Your task to perform on an android device: delete browsing data in the chrome app Image 0: 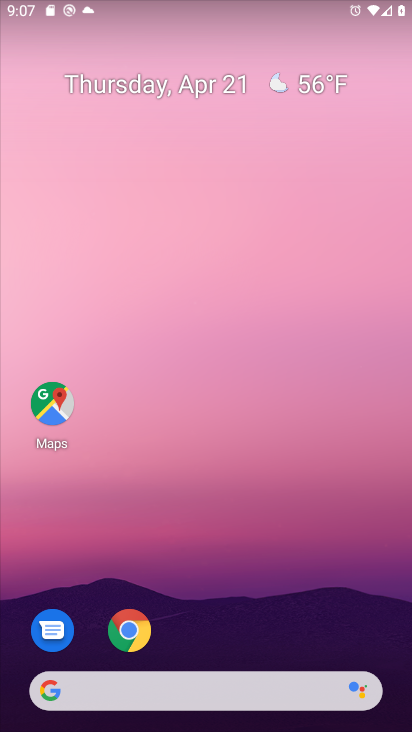
Step 0: click (349, 283)
Your task to perform on an android device: delete browsing data in the chrome app Image 1: 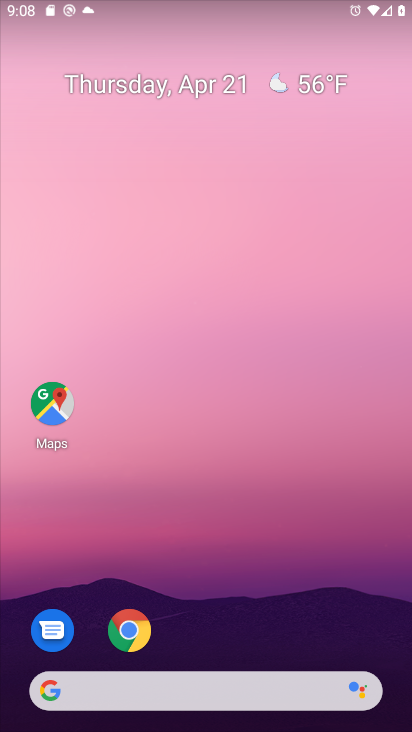
Step 1: click (142, 622)
Your task to perform on an android device: delete browsing data in the chrome app Image 2: 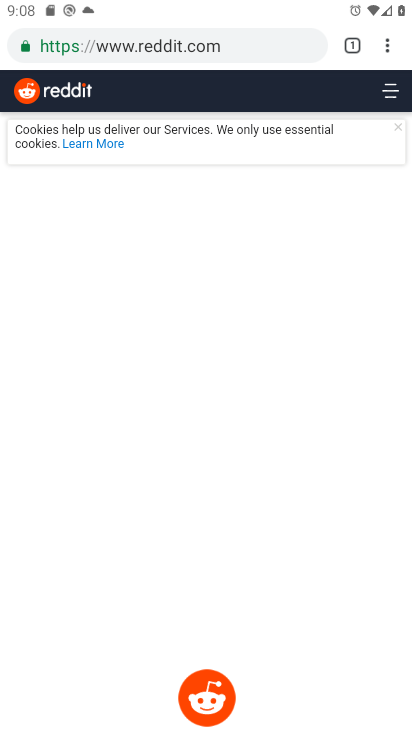
Step 2: click (386, 44)
Your task to perform on an android device: delete browsing data in the chrome app Image 3: 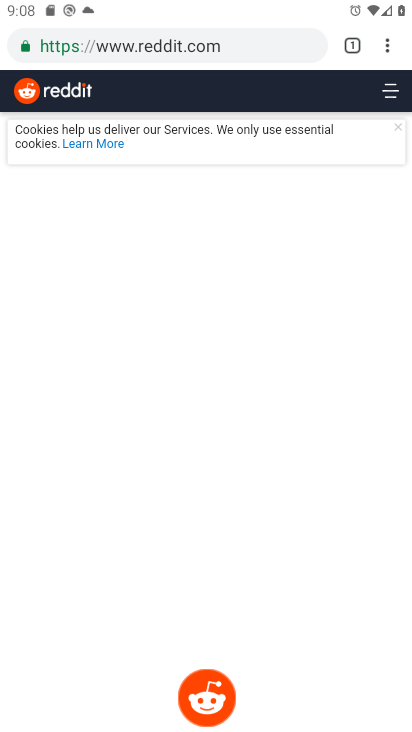
Step 3: click (388, 52)
Your task to perform on an android device: delete browsing data in the chrome app Image 4: 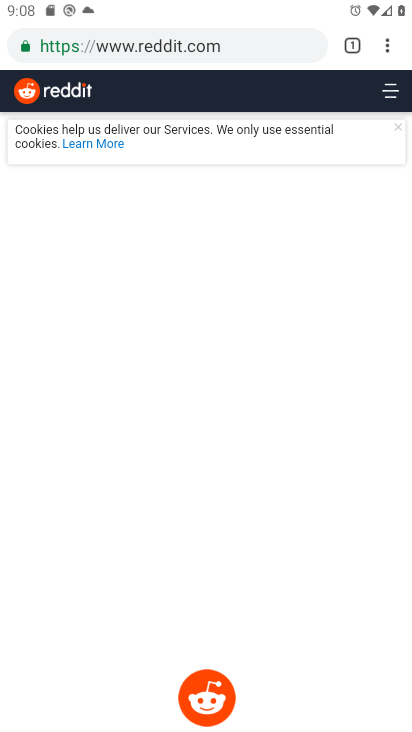
Step 4: click (392, 50)
Your task to perform on an android device: delete browsing data in the chrome app Image 5: 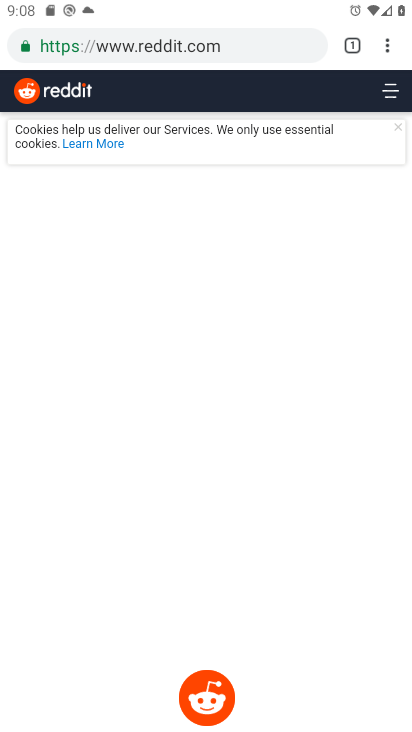
Step 5: click (385, 52)
Your task to perform on an android device: delete browsing data in the chrome app Image 6: 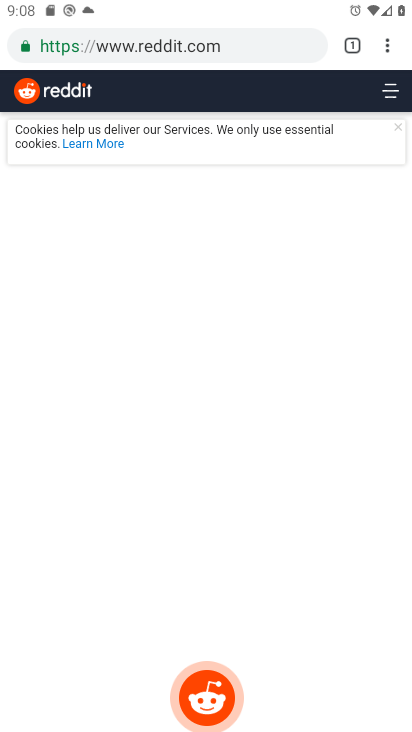
Step 6: click (380, 51)
Your task to perform on an android device: delete browsing data in the chrome app Image 7: 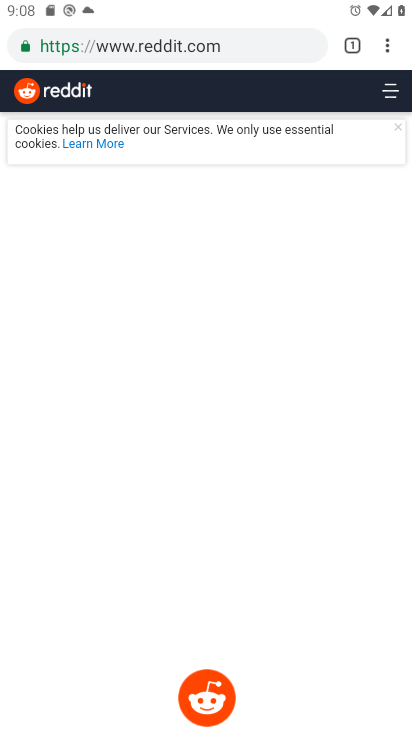
Step 7: click (379, 38)
Your task to perform on an android device: delete browsing data in the chrome app Image 8: 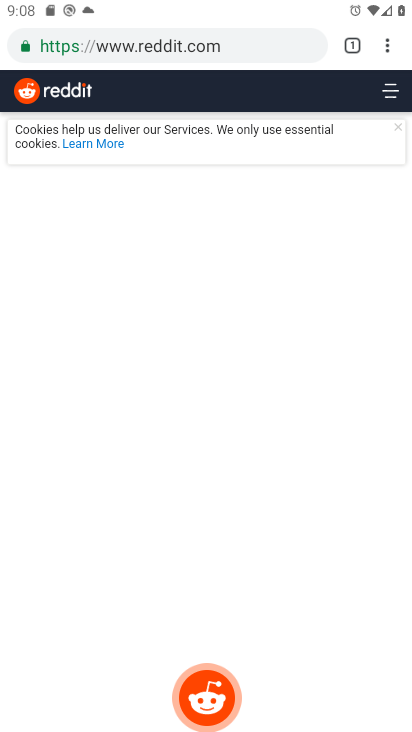
Step 8: click (392, 60)
Your task to perform on an android device: delete browsing data in the chrome app Image 9: 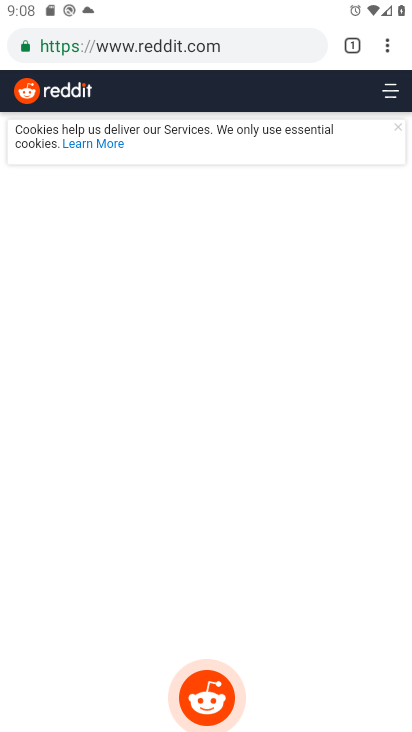
Step 9: click (393, 57)
Your task to perform on an android device: delete browsing data in the chrome app Image 10: 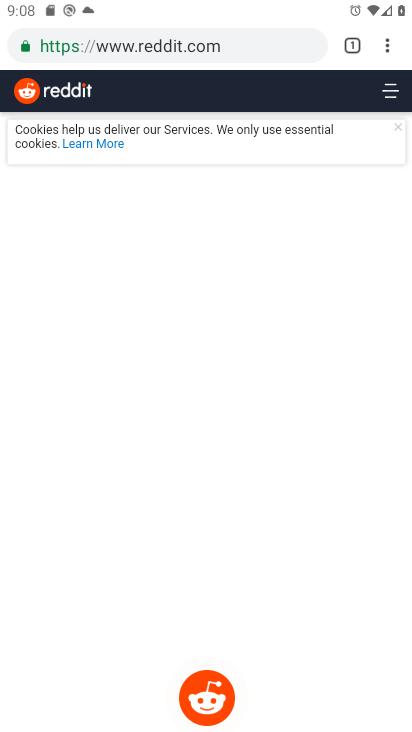
Step 10: click (375, 31)
Your task to perform on an android device: delete browsing data in the chrome app Image 11: 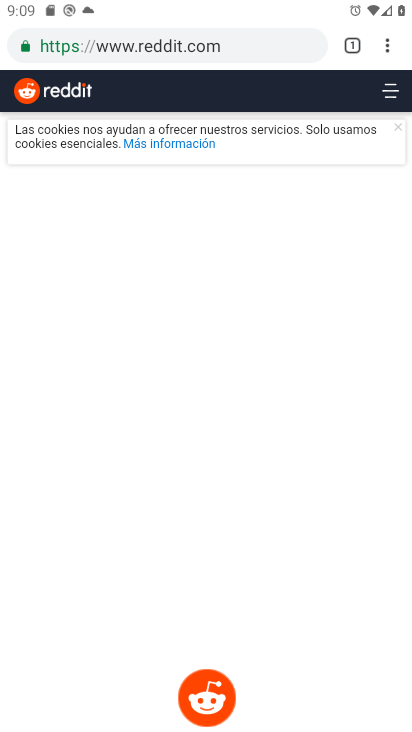
Step 11: click (383, 40)
Your task to perform on an android device: delete browsing data in the chrome app Image 12: 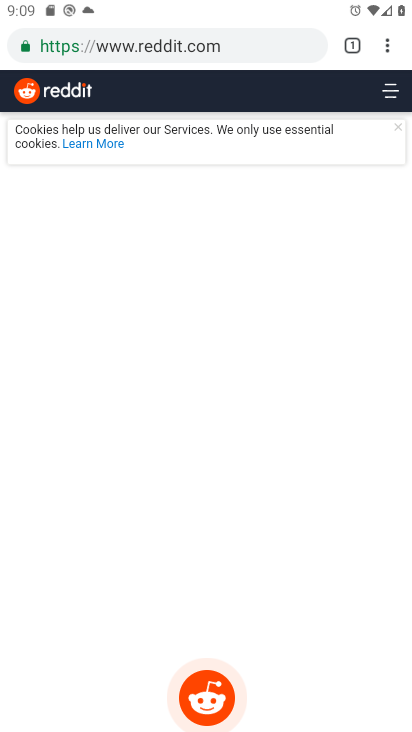
Step 12: click (391, 54)
Your task to perform on an android device: delete browsing data in the chrome app Image 13: 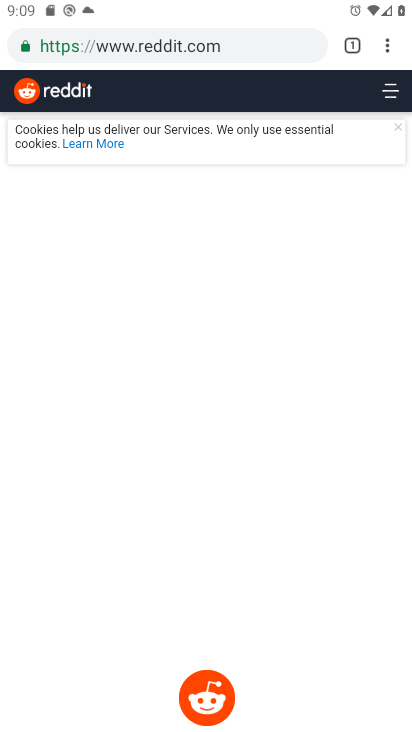
Step 13: click (384, 55)
Your task to perform on an android device: delete browsing data in the chrome app Image 14: 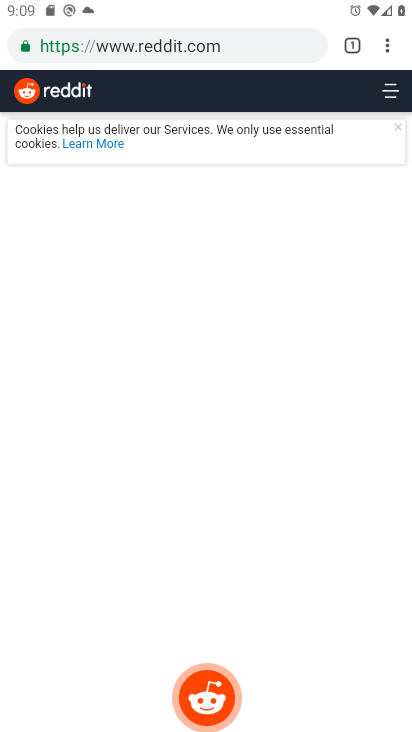
Step 14: click (387, 48)
Your task to perform on an android device: delete browsing data in the chrome app Image 15: 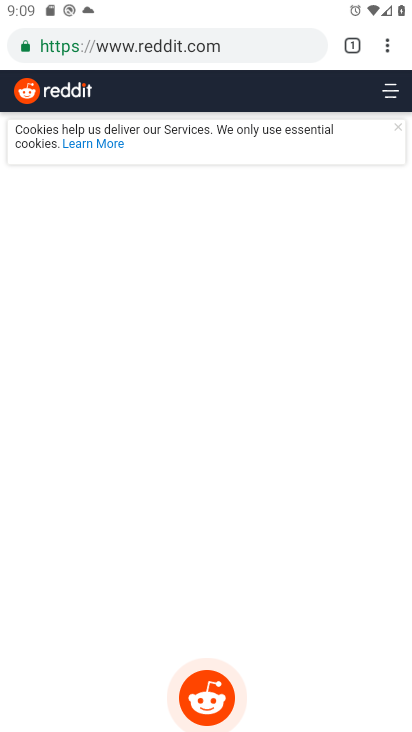
Step 15: click (377, 38)
Your task to perform on an android device: delete browsing data in the chrome app Image 16: 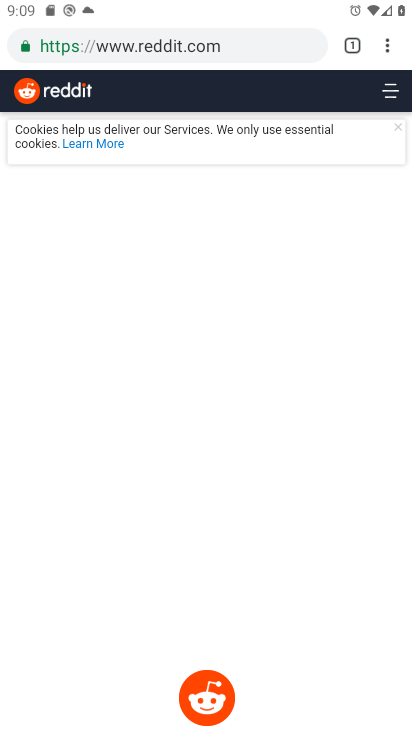
Step 16: click (353, 49)
Your task to perform on an android device: delete browsing data in the chrome app Image 17: 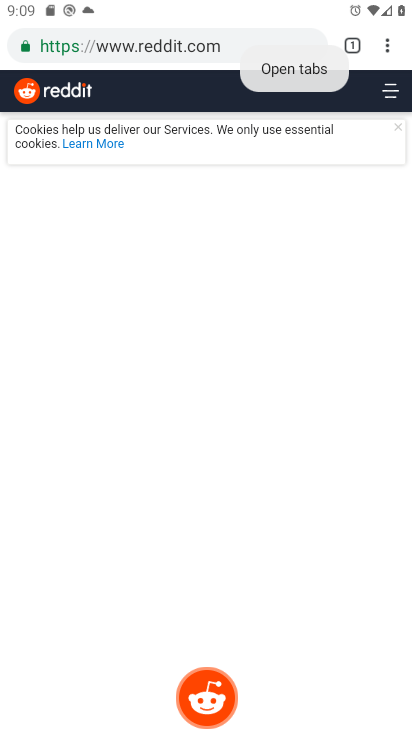
Step 17: click (353, 49)
Your task to perform on an android device: delete browsing data in the chrome app Image 18: 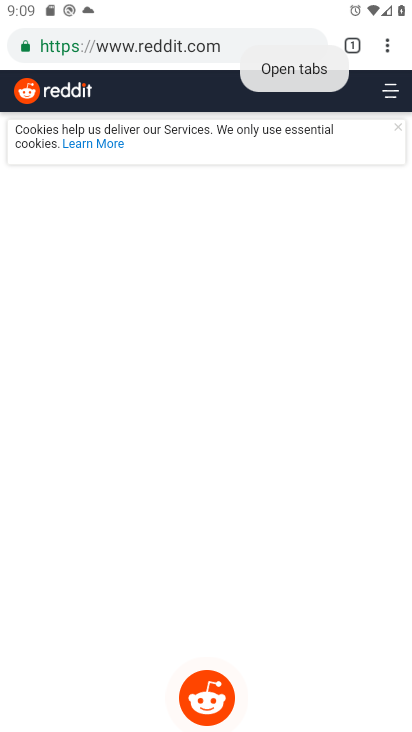
Step 18: click (353, 49)
Your task to perform on an android device: delete browsing data in the chrome app Image 19: 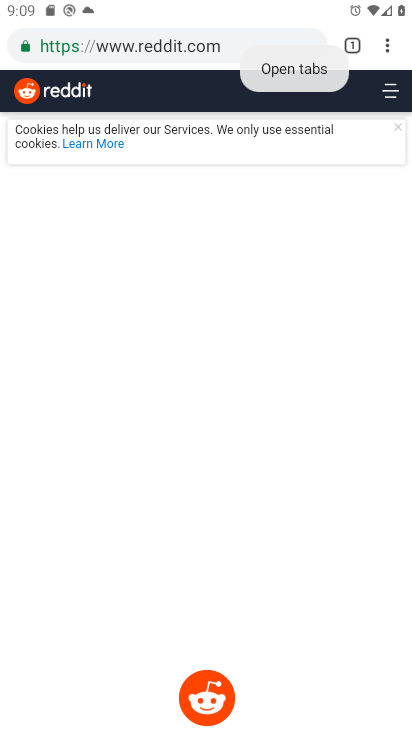
Step 19: click (353, 49)
Your task to perform on an android device: delete browsing data in the chrome app Image 20: 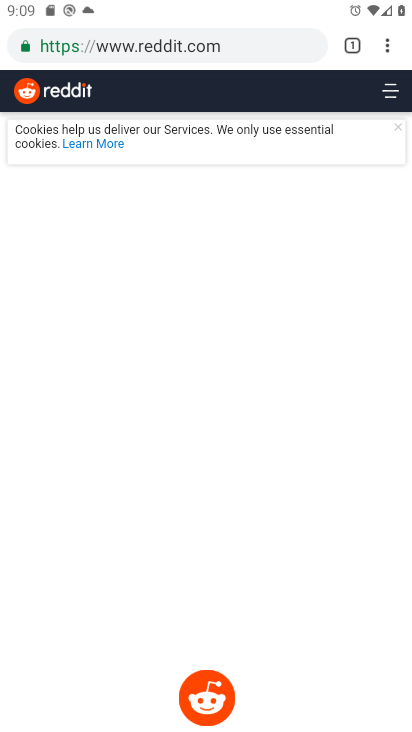
Step 20: click (352, 48)
Your task to perform on an android device: delete browsing data in the chrome app Image 21: 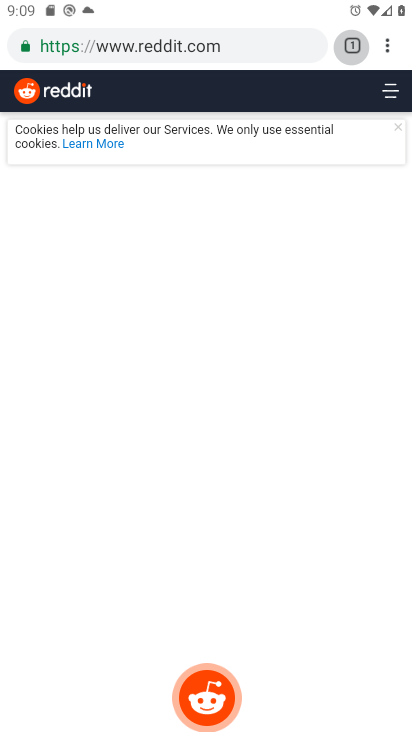
Step 21: click (352, 47)
Your task to perform on an android device: delete browsing data in the chrome app Image 22: 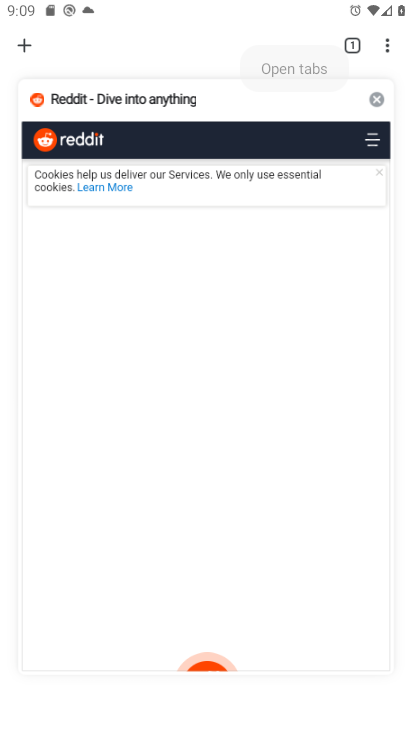
Step 22: click (14, 45)
Your task to perform on an android device: delete browsing data in the chrome app Image 23: 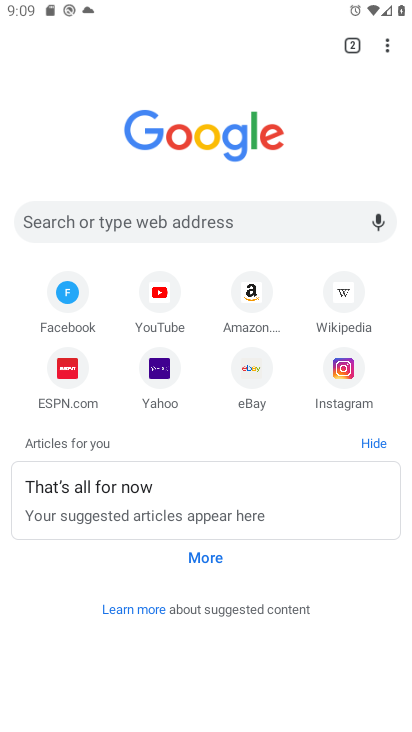
Step 23: click (389, 44)
Your task to perform on an android device: delete browsing data in the chrome app Image 24: 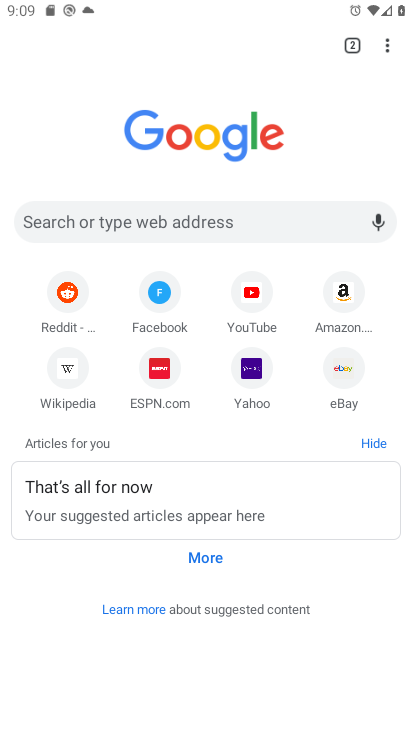
Step 24: click (394, 52)
Your task to perform on an android device: delete browsing data in the chrome app Image 25: 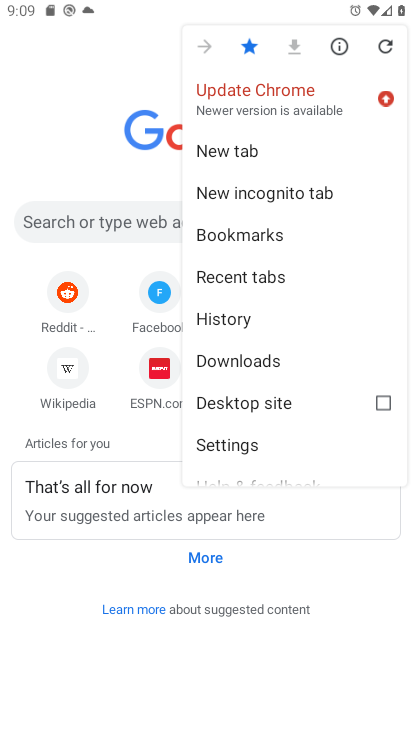
Step 25: click (238, 317)
Your task to perform on an android device: delete browsing data in the chrome app Image 26: 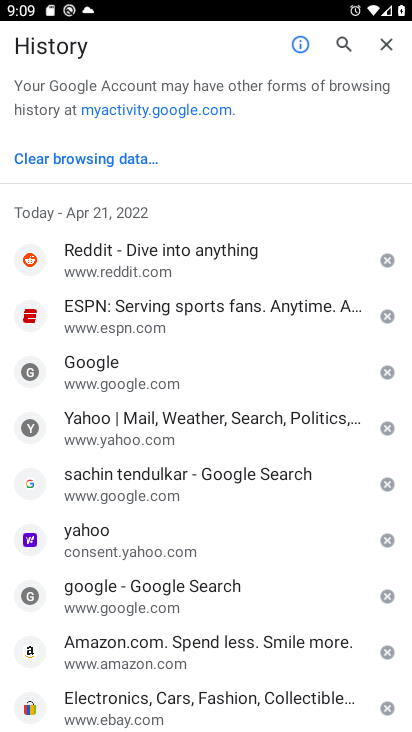
Step 26: click (104, 164)
Your task to perform on an android device: delete browsing data in the chrome app Image 27: 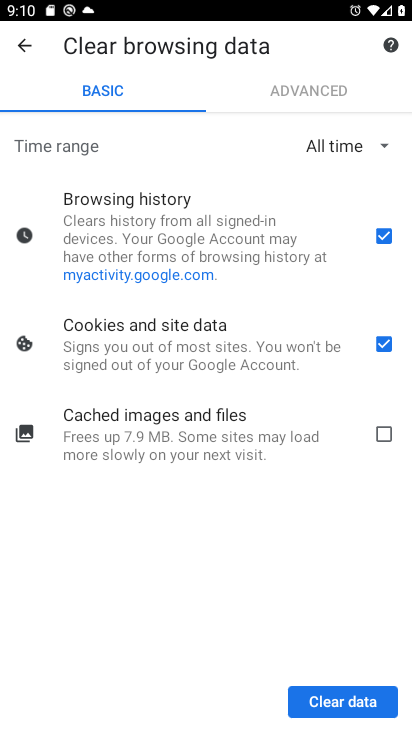
Step 27: click (384, 434)
Your task to perform on an android device: delete browsing data in the chrome app Image 28: 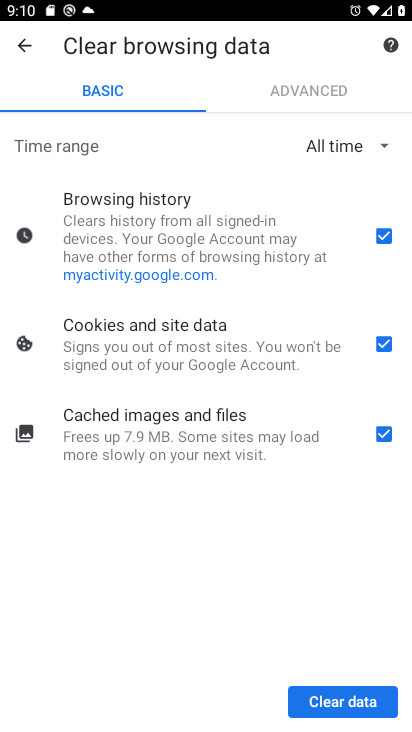
Step 28: click (328, 701)
Your task to perform on an android device: delete browsing data in the chrome app Image 29: 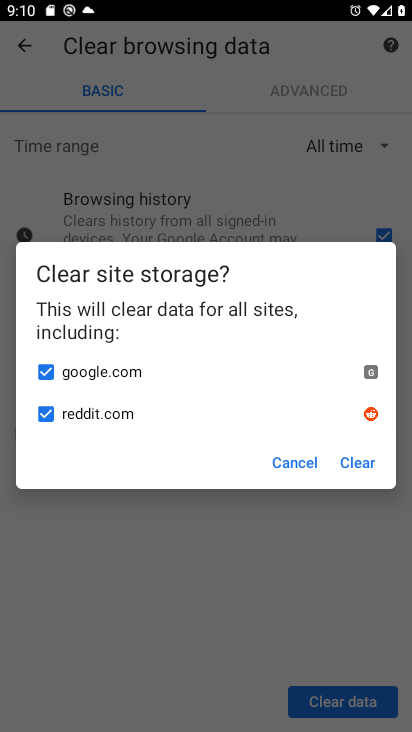
Step 29: click (364, 441)
Your task to perform on an android device: delete browsing data in the chrome app Image 30: 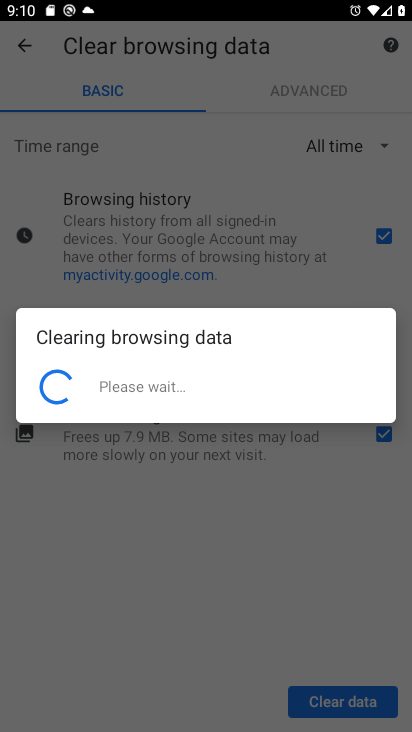
Step 30: click (356, 463)
Your task to perform on an android device: delete browsing data in the chrome app Image 31: 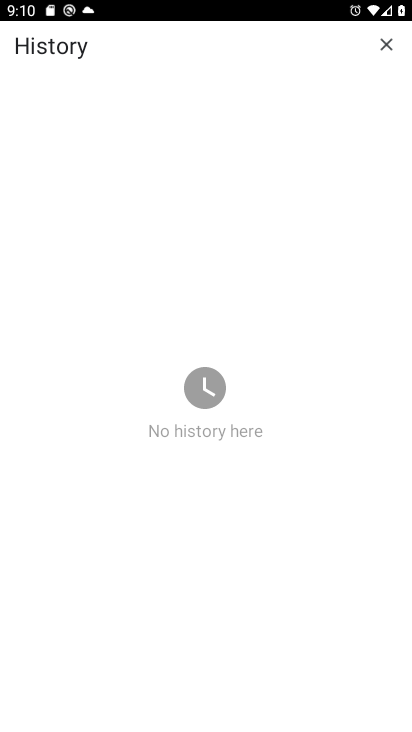
Step 31: task complete